Your task to perform on an android device: Open sound settings Image 0: 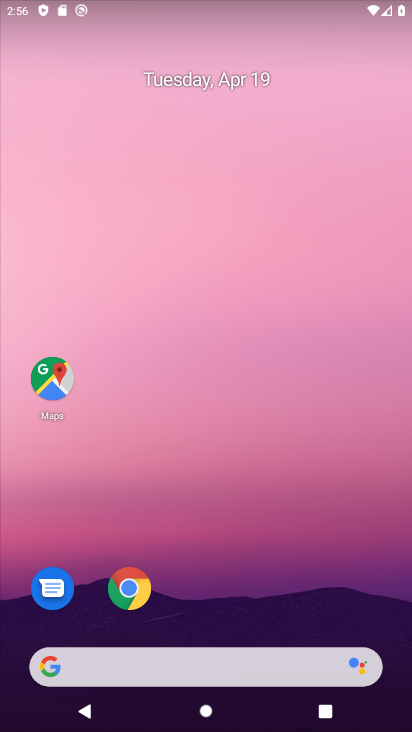
Step 0: click (216, 159)
Your task to perform on an android device: Open sound settings Image 1: 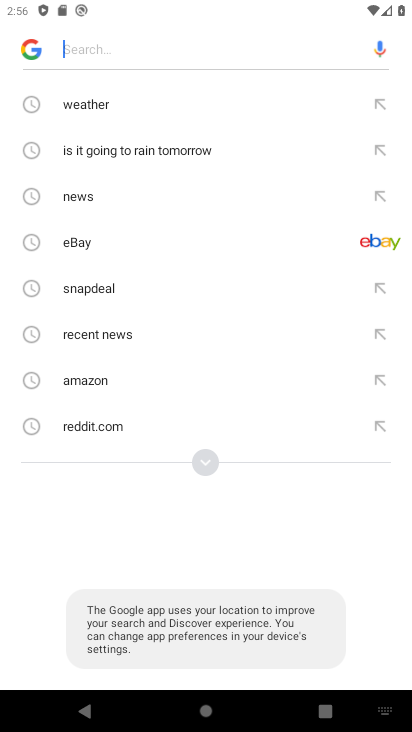
Step 1: press home button
Your task to perform on an android device: Open sound settings Image 2: 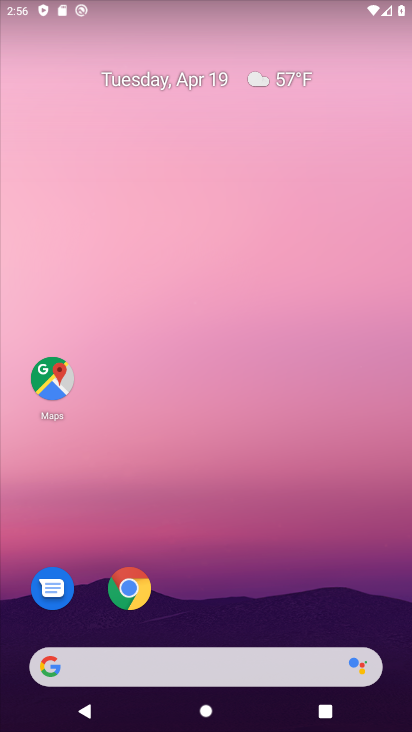
Step 2: drag from (200, 534) to (211, 116)
Your task to perform on an android device: Open sound settings Image 3: 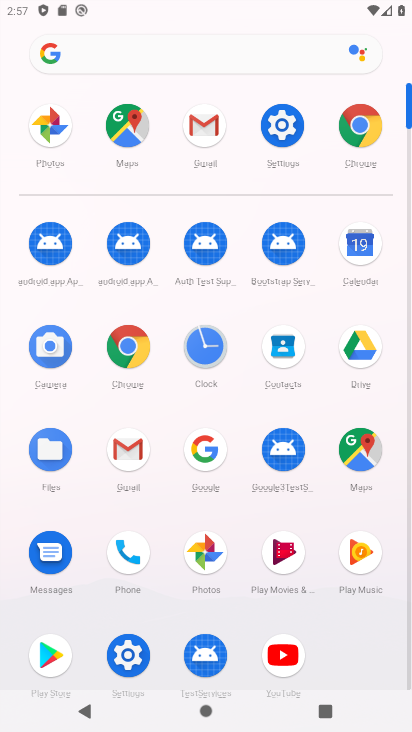
Step 3: click (132, 662)
Your task to perform on an android device: Open sound settings Image 4: 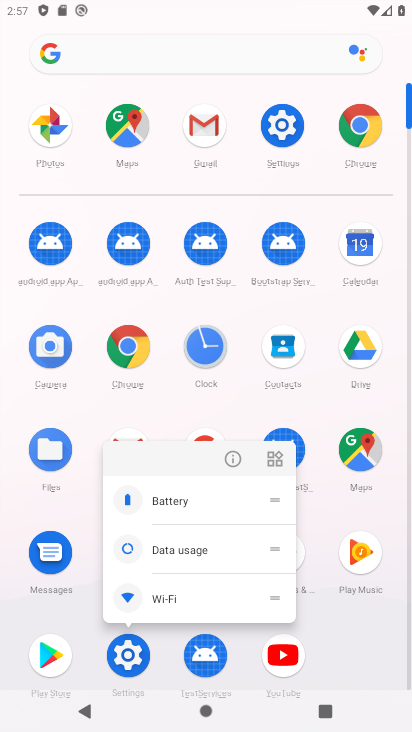
Step 4: click (241, 455)
Your task to perform on an android device: Open sound settings Image 5: 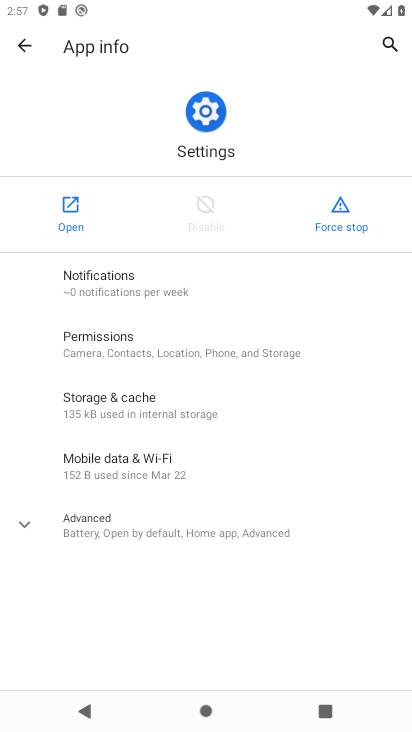
Step 5: click (67, 206)
Your task to perform on an android device: Open sound settings Image 6: 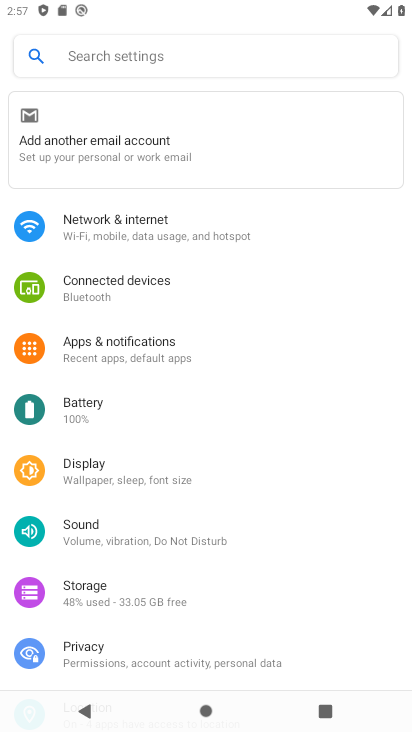
Step 6: click (123, 529)
Your task to perform on an android device: Open sound settings Image 7: 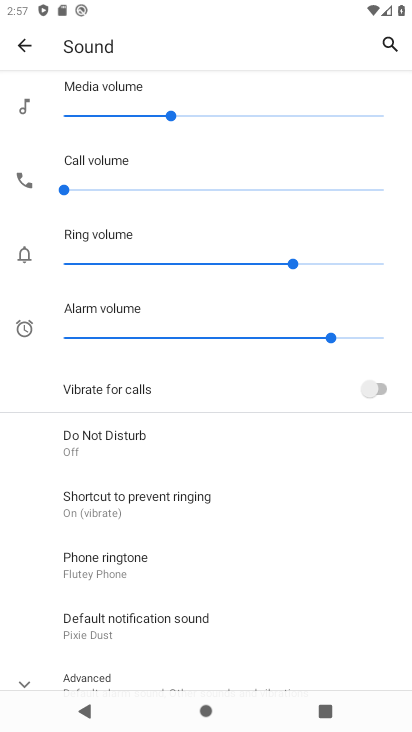
Step 7: task complete